Your task to perform on an android device: turn off sleep mode Image 0: 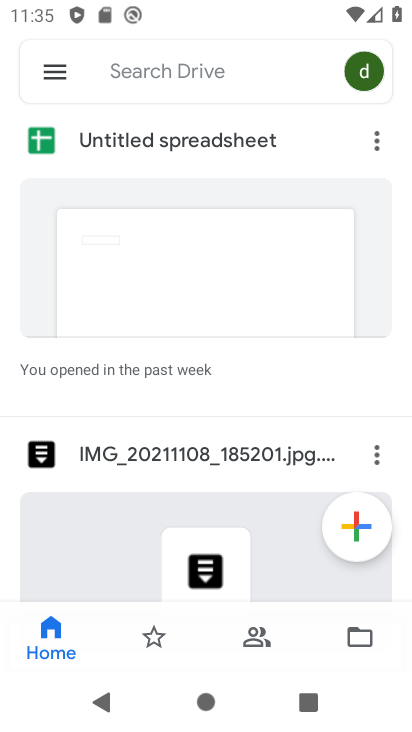
Step 0: drag from (187, 639) to (128, 167)
Your task to perform on an android device: turn off sleep mode Image 1: 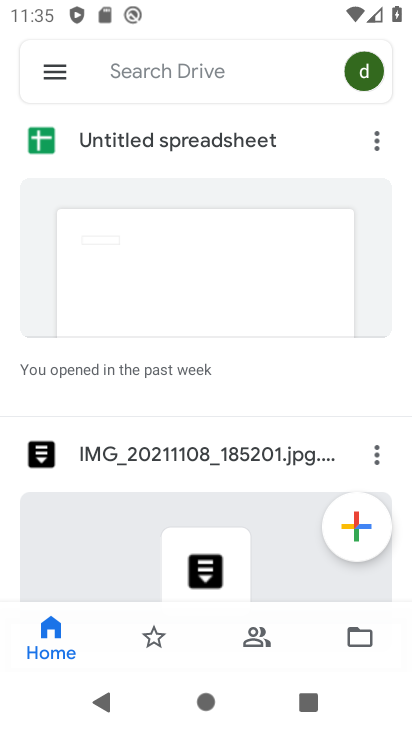
Step 1: press home button
Your task to perform on an android device: turn off sleep mode Image 2: 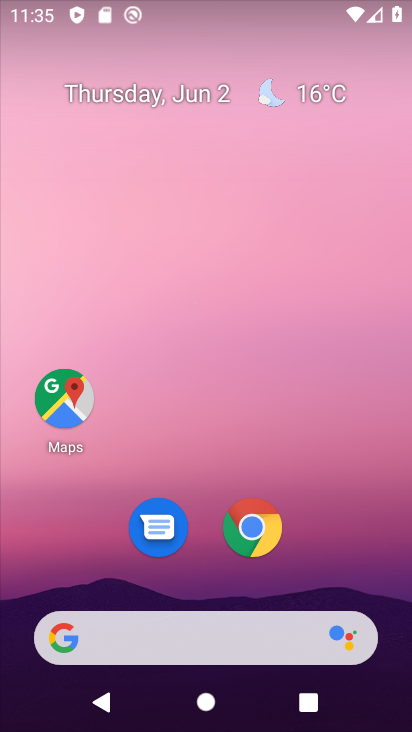
Step 2: drag from (207, 638) to (196, 7)
Your task to perform on an android device: turn off sleep mode Image 3: 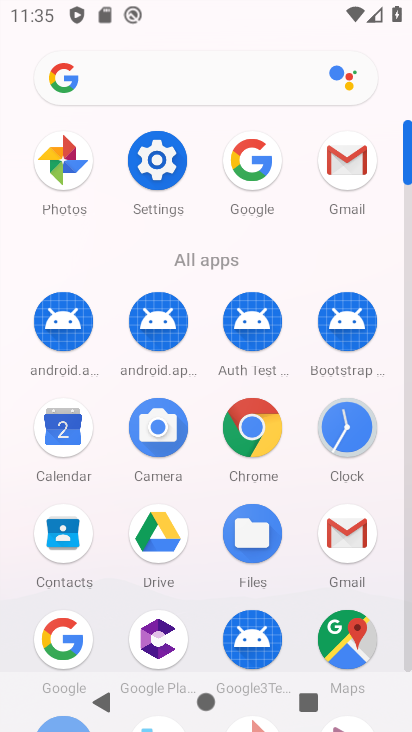
Step 3: click (158, 177)
Your task to perform on an android device: turn off sleep mode Image 4: 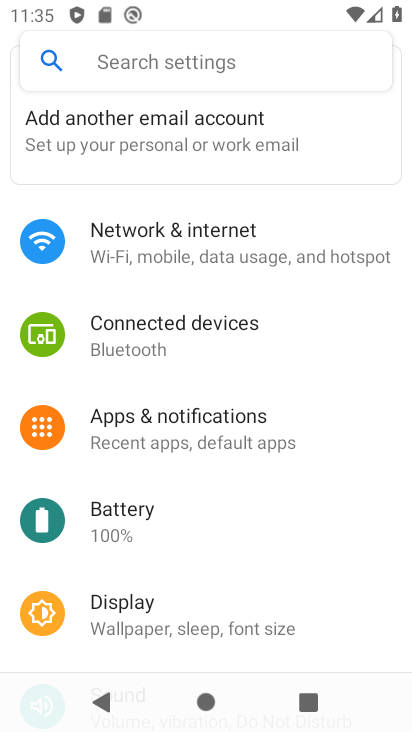
Step 4: click (132, 608)
Your task to perform on an android device: turn off sleep mode Image 5: 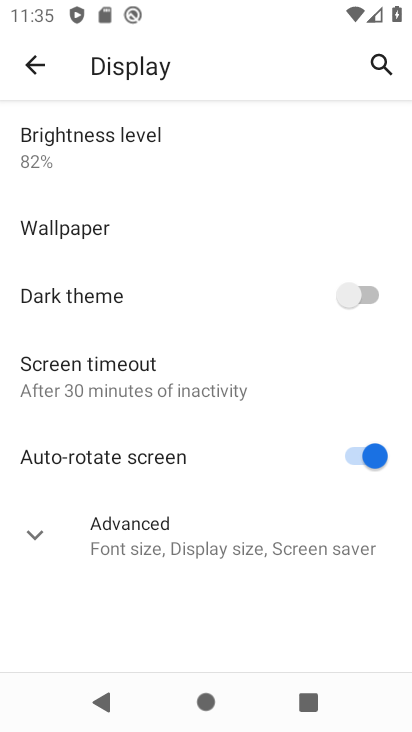
Step 5: click (185, 545)
Your task to perform on an android device: turn off sleep mode Image 6: 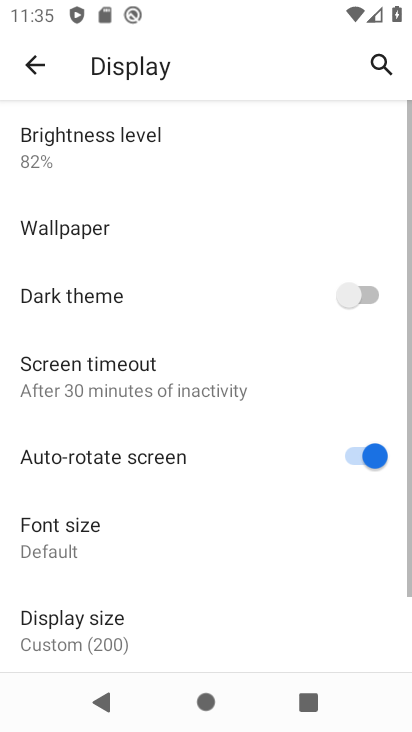
Step 6: task complete